Your task to perform on an android device: Find coffee shops on Maps Image 0: 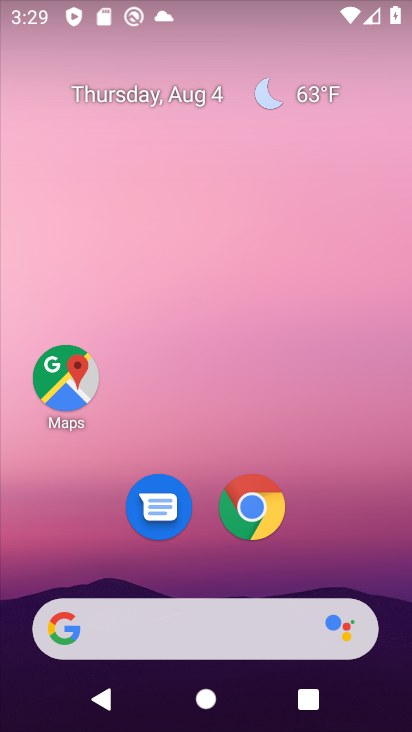
Step 0: click (71, 371)
Your task to perform on an android device: Find coffee shops on Maps Image 1: 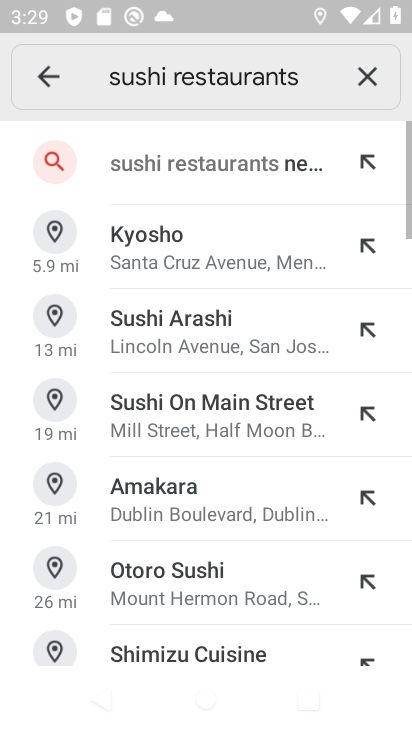
Step 1: click (29, 73)
Your task to perform on an android device: Find coffee shops on Maps Image 2: 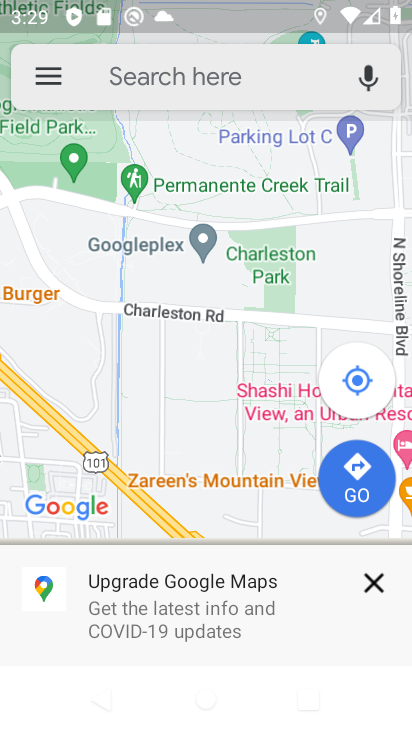
Step 2: click (181, 75)
Your task to perform on an android device: Find coffee shops on Maps Image 3: 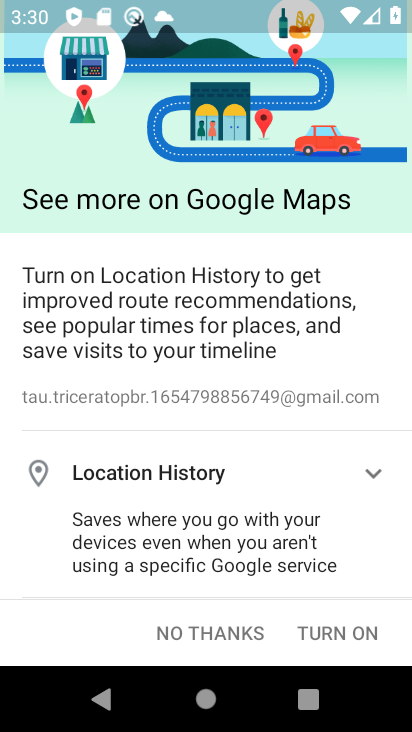
Step 3: click (180, 622)
Your task to perform on an android device: Find coffee shops on Maps Image 4: 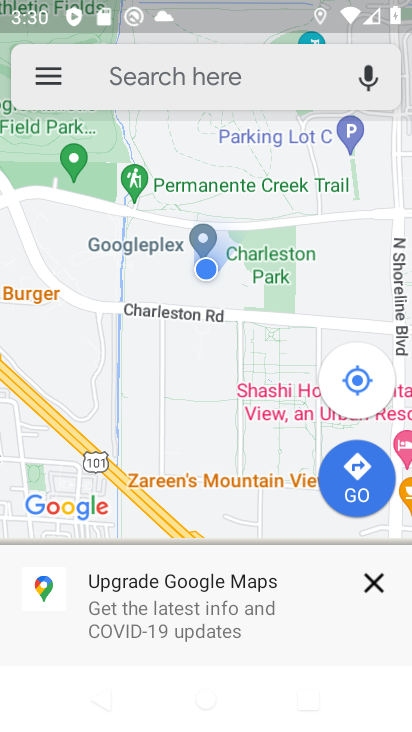
Step 4: click (101, 61)
Your task to perform on an android device: Find coffee shops on Maps Image 5: 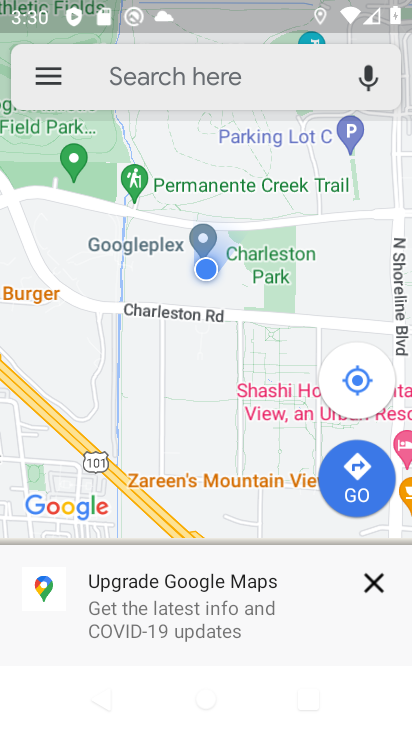
Step 5: click (116, 82)
Your task to perform on an android device: Find coffee shops on Maps Image 6: 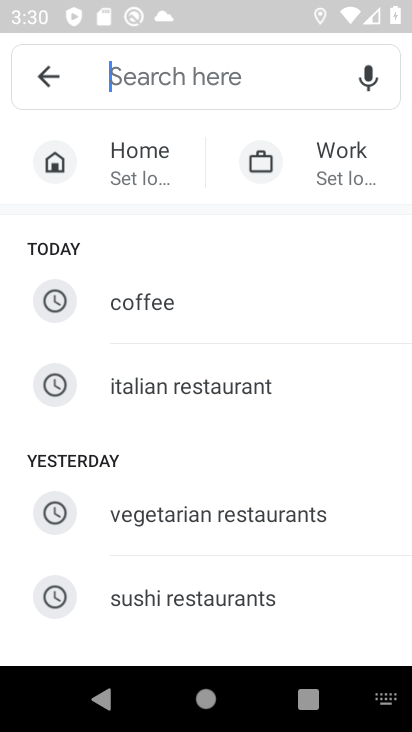
Step 6: type "coffee shops "
Your task to perform on an android device: Find coffee shops on Maps Image 7: 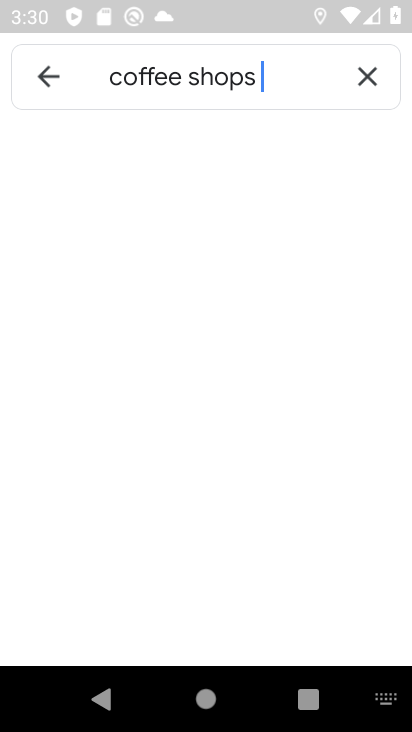
Step 7: type ""
Your task to perform on an android device: Find coffee shops on Maps Image 8: 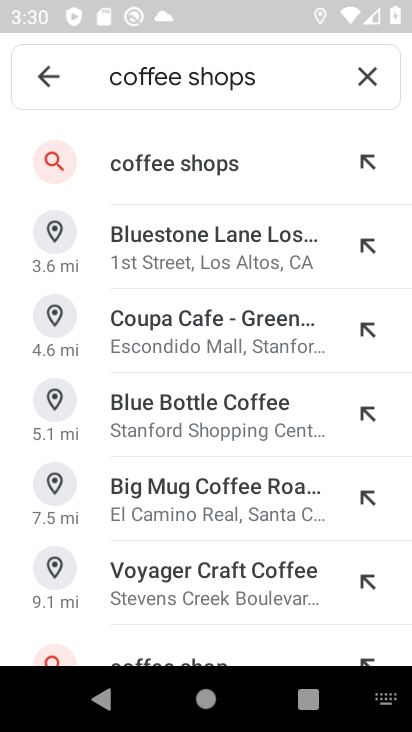
Step 8: click (178, 173)
Your task to perform on an android device: Find coffee shops on Maps Image 9: 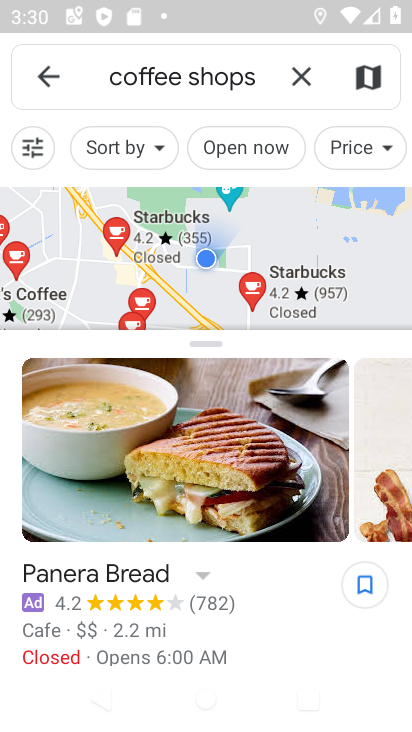
Step 9: task complete